Your task to perform on an android device: open wifi settings Image 0: 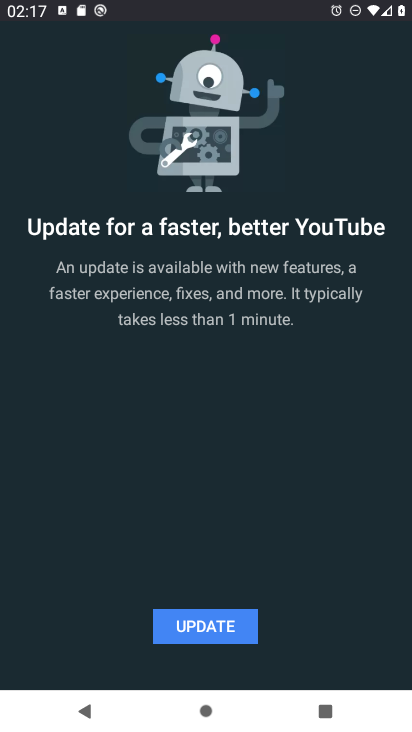
Step 0: press home button
Your task to perform on an android device: open wifi settings Image 1: 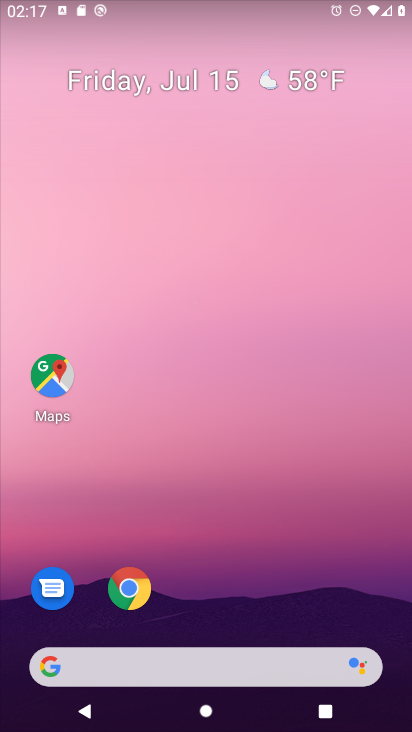
Step 1: drag from (329, 434) to (323, 16)
Your task to perform on an android device: open wifi settings Image 2: 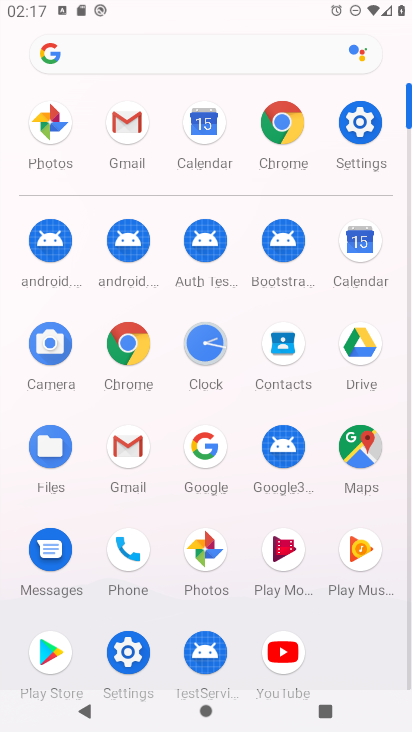
Step 2: click (132, 656)
Your task to perform on an android device: open wifi settings Image 3: 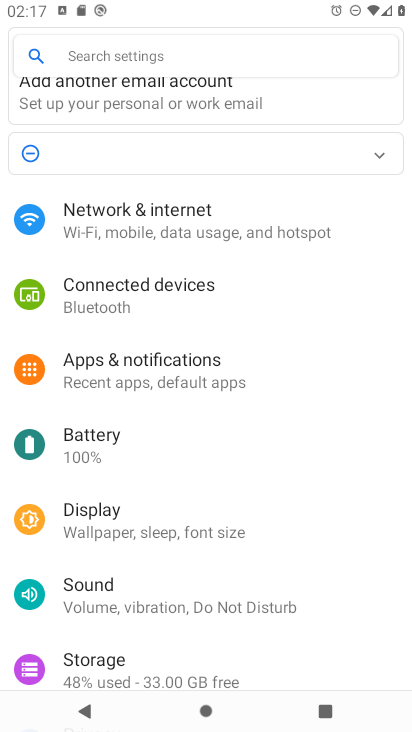
Step 3: click (131, 227)
Your task to perform on an android device: open wifi settings Image 4: 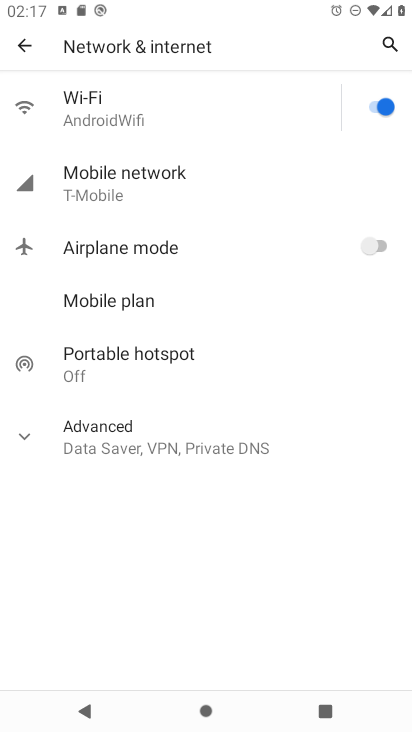
Step 4: click (78, 111)
Your task to perform on an android device: open wifi settings Image 5: 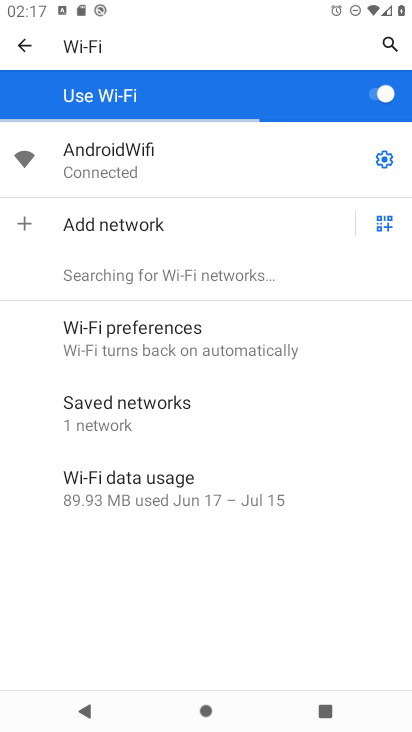
Step 5: click (381, 161)
Your task to perform on an android device: open wifi settings Image 6: 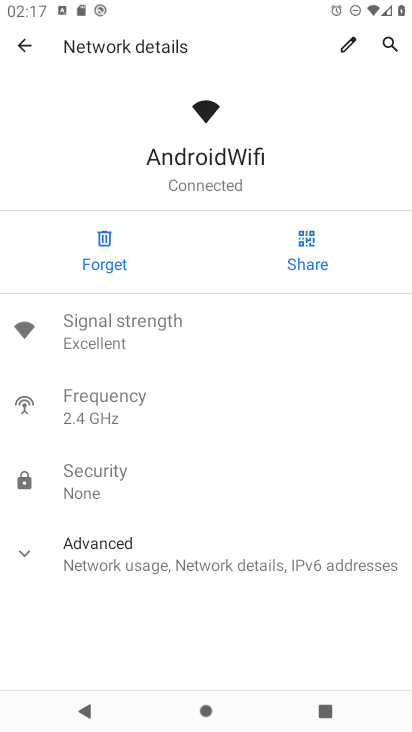
Step 6: click (25, 548)
Your task to perform on an android device: open wifi settings Image 7: 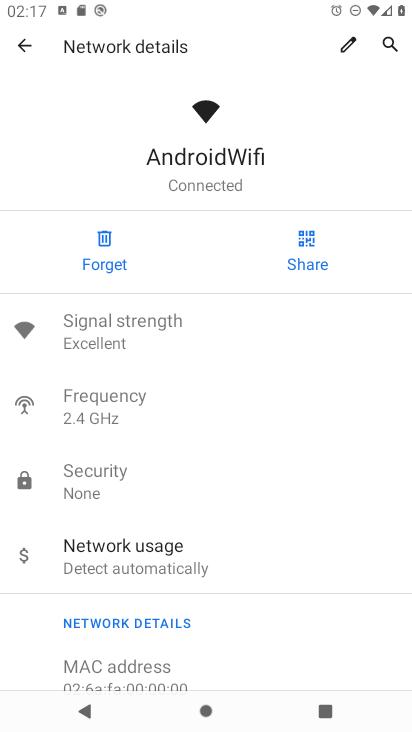
Step 7: task complete